Your task to perform on an android device: Open the map Image 0: 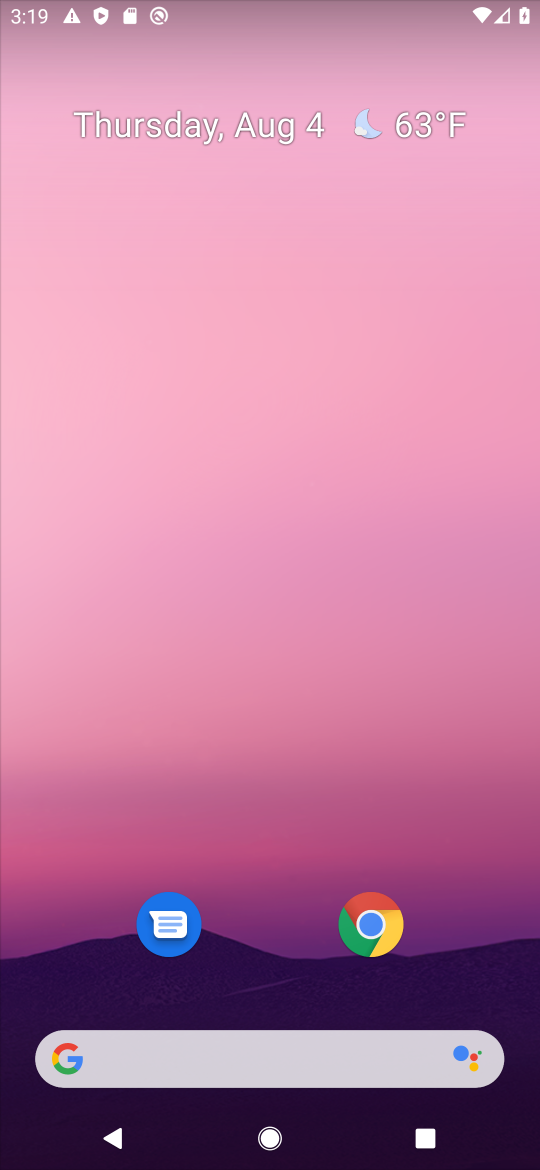
Step 0: drag from (267, 926) to (154, 110)
Your task to perform on an android device: Open the map Image 1: 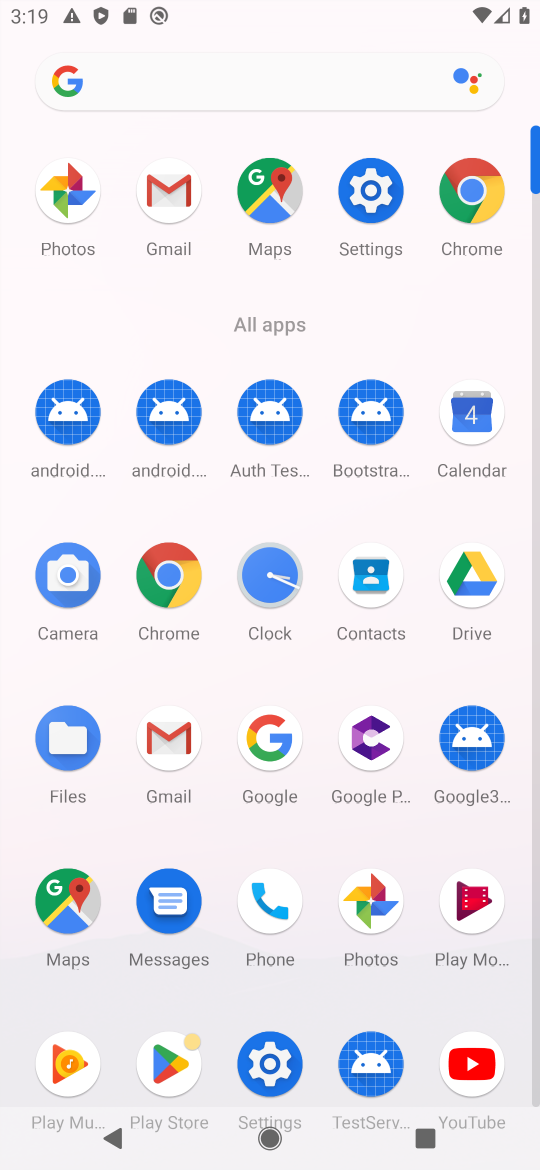
Step 1: click (57, 912)
Your task to perform on an android device: Open the map Image 2: 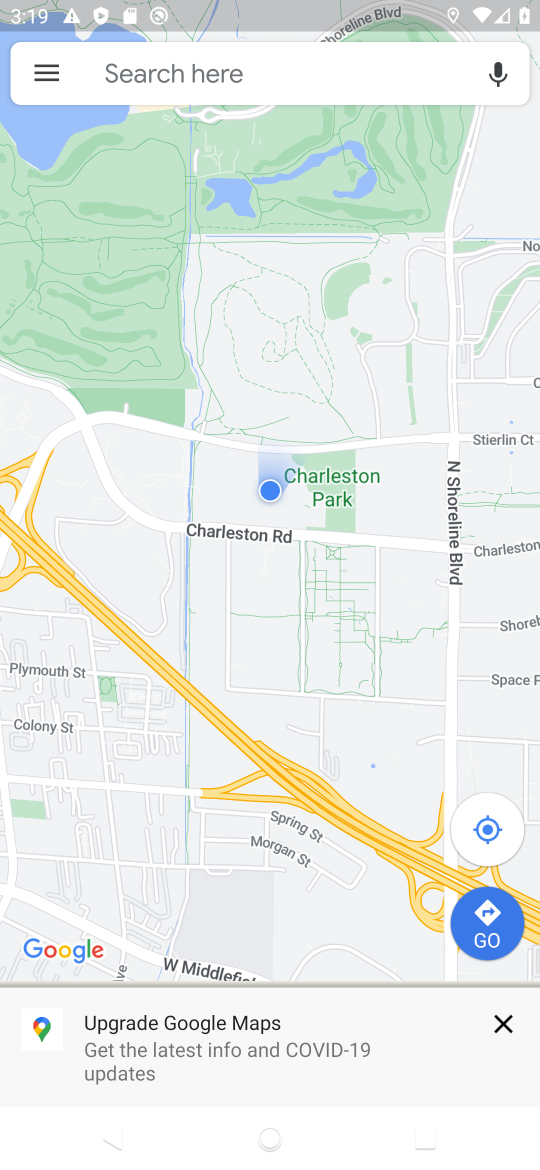
Step 2: task complete